Your task to perform on an android device: allow notifications from all sites in the chrome app Image 0: 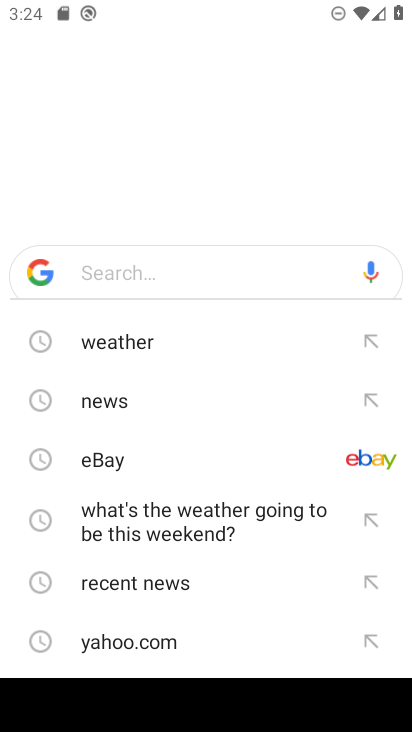
Step 0: click (223, 611)
Your task to perform on an android device: allow notifications from all sites in the chrome app Image 1: 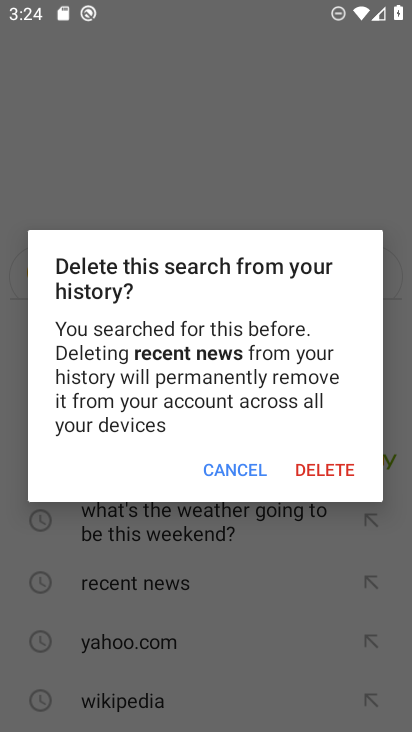
Step 1: press home button
Your task to perform on an android device: allow notifications from all sites in the chrome app Image 2: 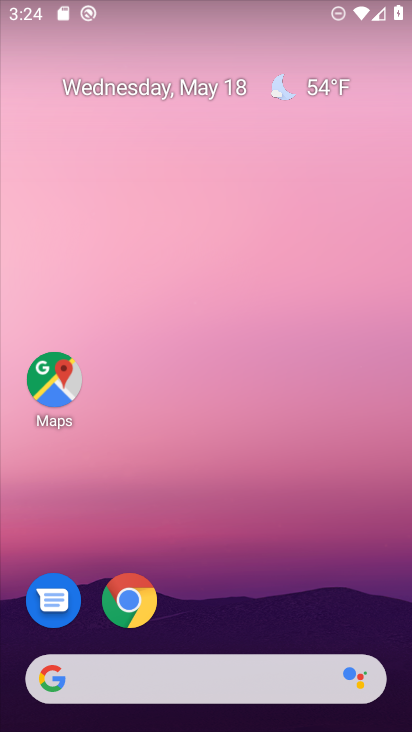
Step 2: click (187, 590)
Your task to perform on an android device: allow notifications from all sites in the chrome app Image 3: 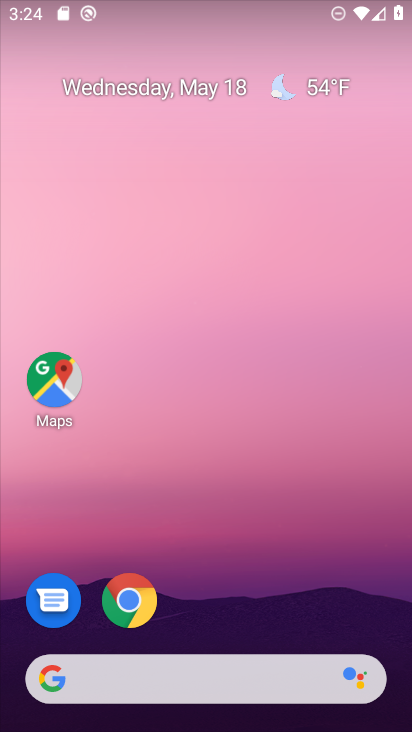
Step 3: click (144, 591)
Your task to perform on an android device: allow notifications from all sites in the chrome app Image 4: 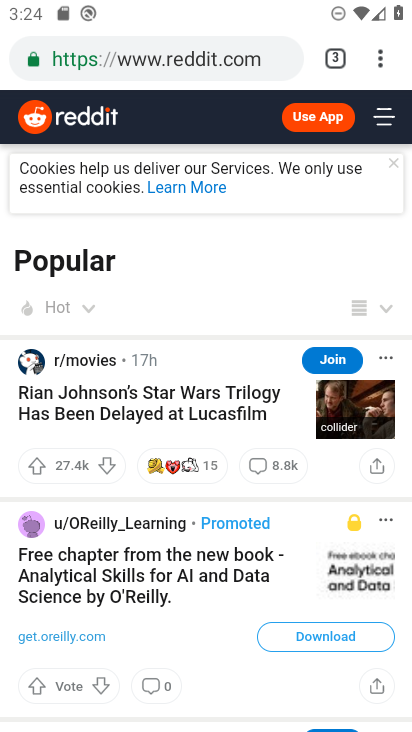
Step 4: click (377, 50)
Your task to perform on an android device: allow notifications from all sites in the chrome app Image 5: 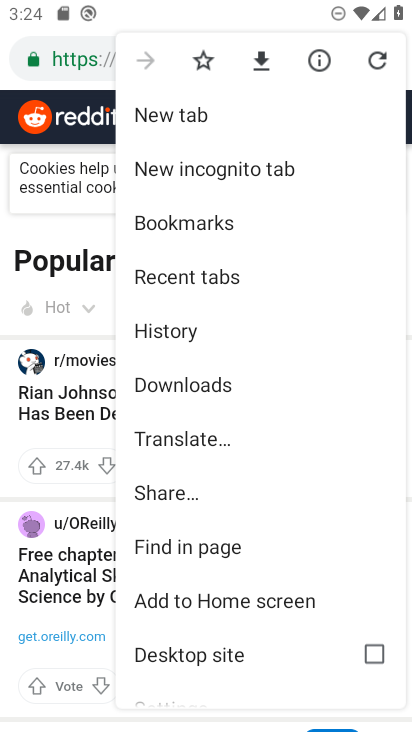
Step 5: drag from (187, 597) to (227, 328)
Your task to perform on an android device: allow notifications from all sites in the chrome app Image 6: 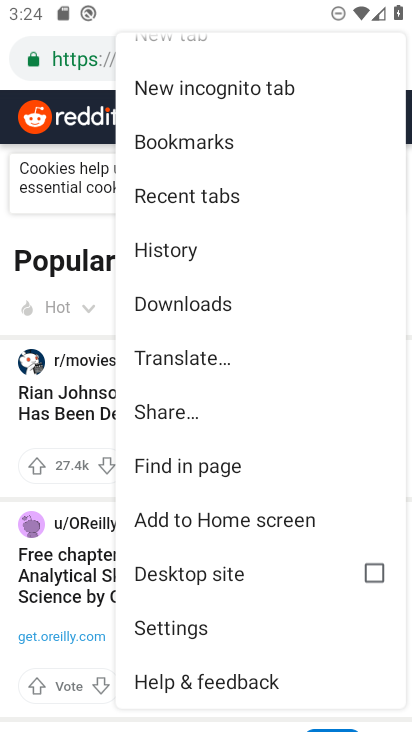
Step 6: click (171, 631)
Your task to perform on an android device: allow notifications from all sites in the chrome app Image 7: 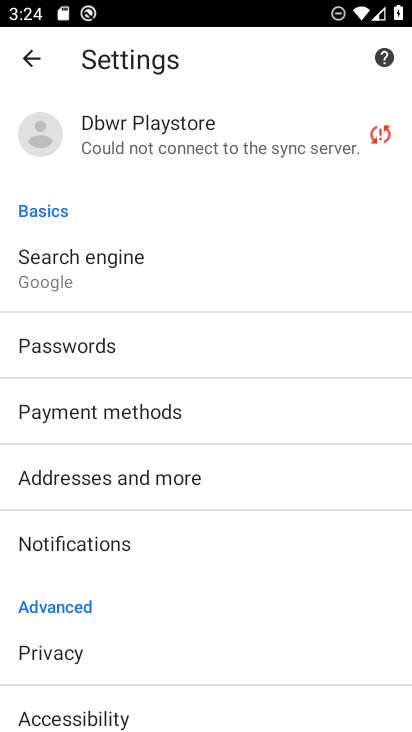
Step 7: click (112, 552)
Your task to perform on an android device: allow notifications from all sites in the chrome app Image 8: 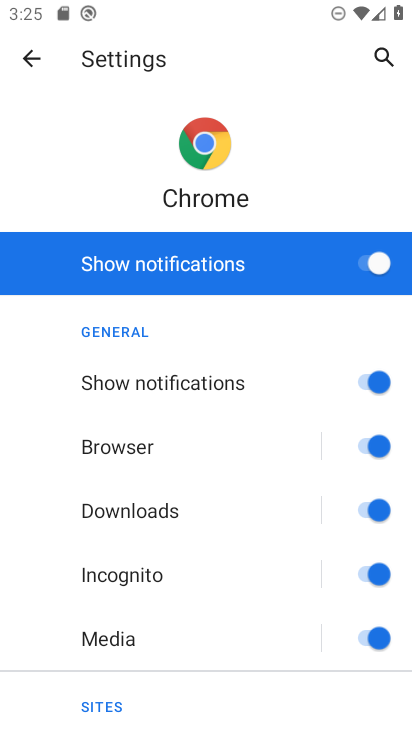
Step 8: task complete